Your task to perform on an android device: stop showing notifications on the lock screen Image 0: 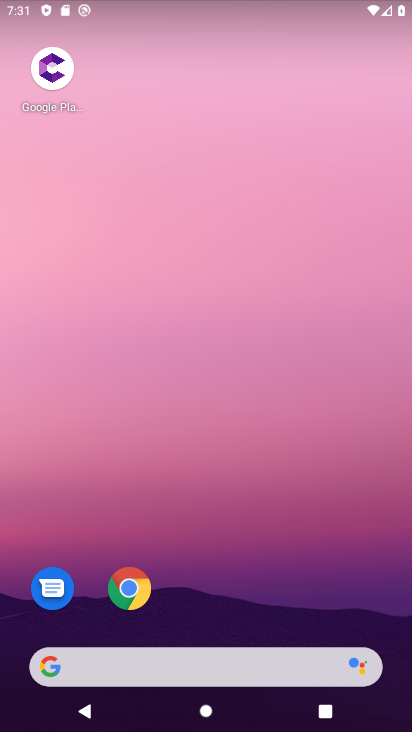
Step 0: drag from (230, 552) to (126, 54)
Your task to perform on an android device: stop showing notifications on the lock screen Image 1: 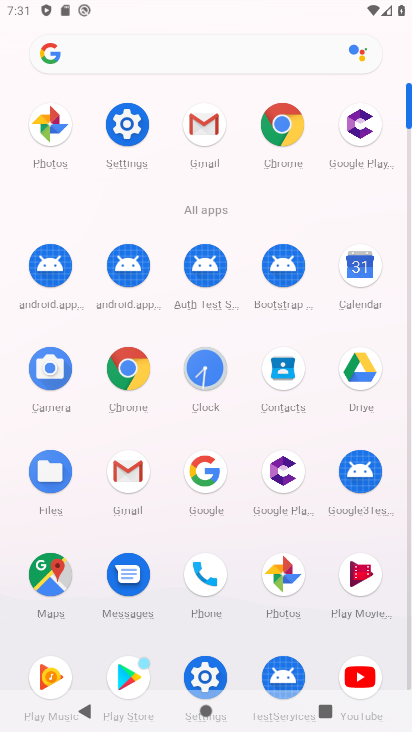
Step 1: click (125, 116)
Your task to perform on an android device: stop showing notifications on the lock screen Image 2: 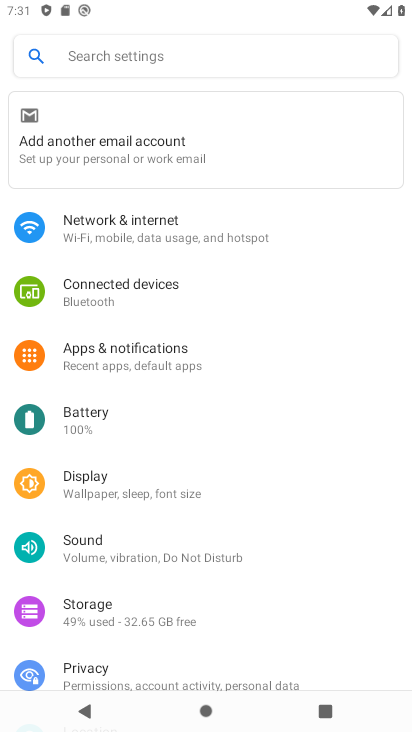
Step 2: click (148, 342)
Your task to perform on an android device: stop showing notifications on the lock screen Image 3: 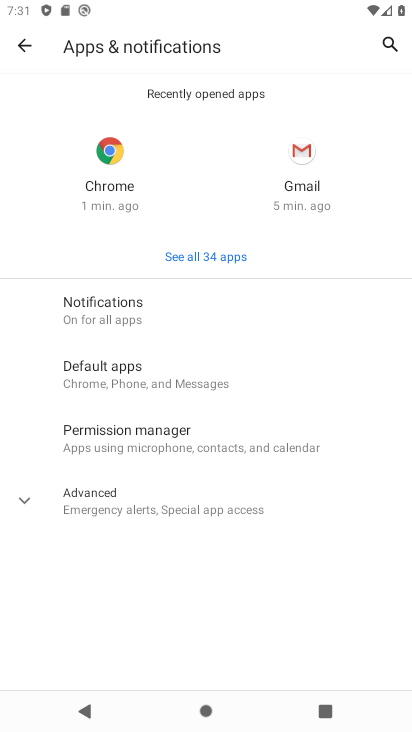
Step 3: click (123, 308)
Your task to perform on an android device: stop showing notifications on the lock screen Image 4: 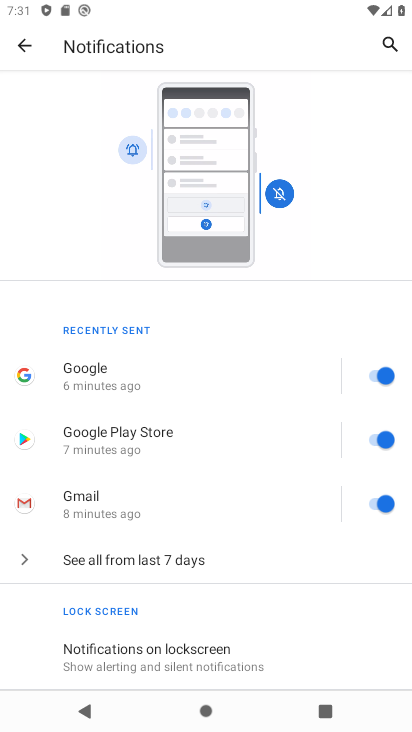
Step 4: drag from (217, 604) to (187, 365)
Your task to perform on an android device: stop showing notifications on the lock screen Image 5: 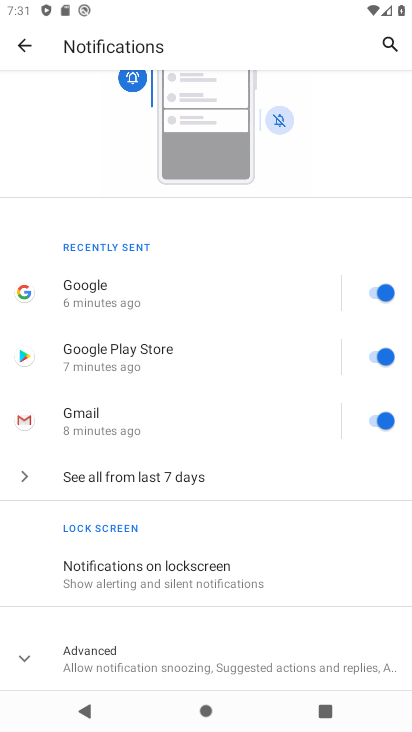
Step 5: click (144, 563)
Your task to perform on an android device: stop showing notifications on the lock screen Image 6: 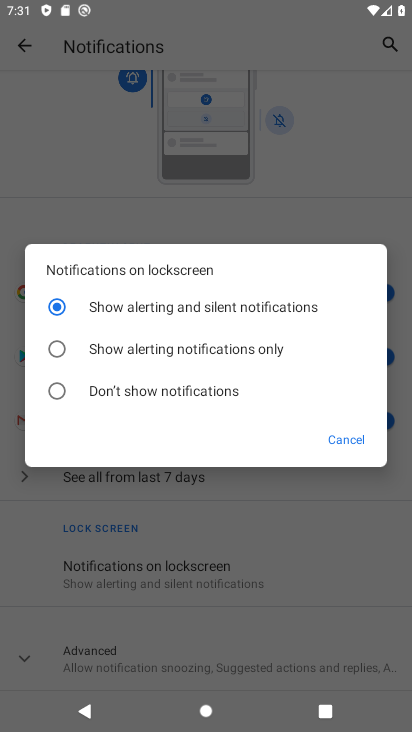
Step 6: click (50, 394)
Your task to perform on an android device: stop showing notifications on the lock screen Image 7: 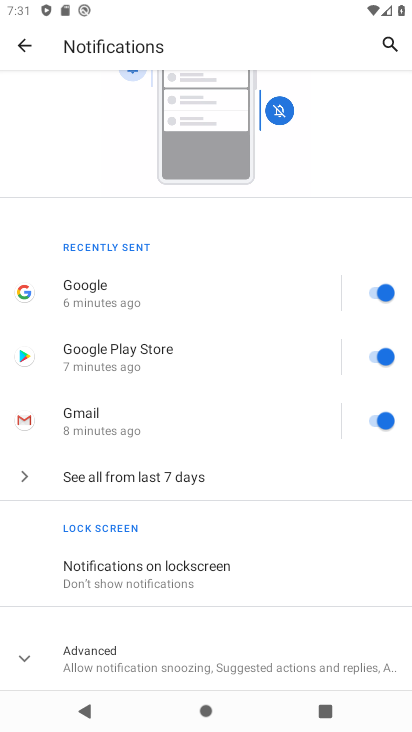
Step 7: task complete